Your task to perform on an android device: Open eBay Image 0: 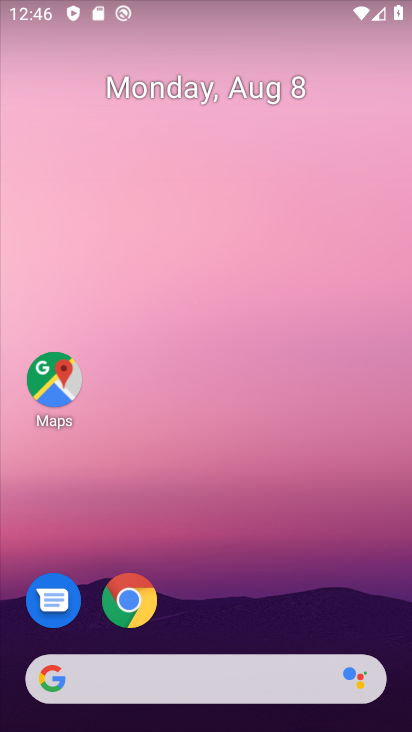
Step 0: press home button
Your task to perform on an android device: Open eBay Image 1: 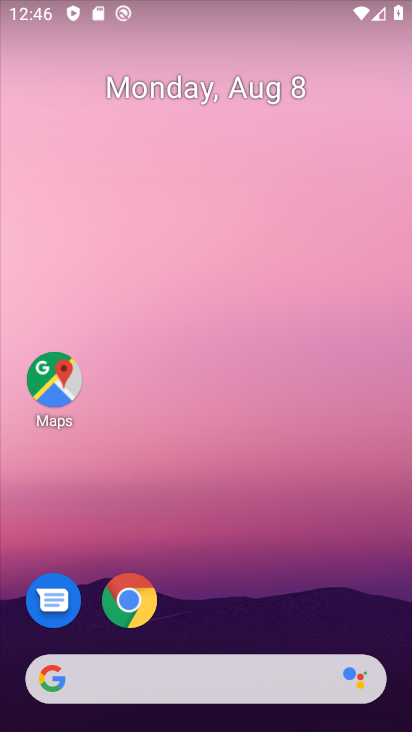
Step 1: drag from (112, 198) to (272, 169)
Your task to perform on an android device: Open eBay Image 2: 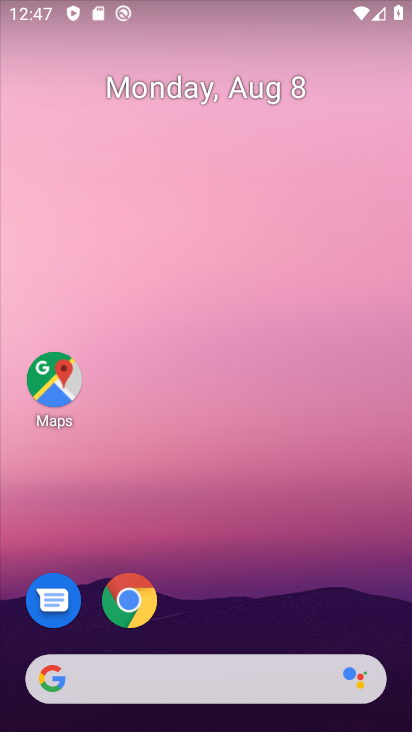
Step 2: click (135, 599)
Your task to perform on an android device: Open eBay Image 3: 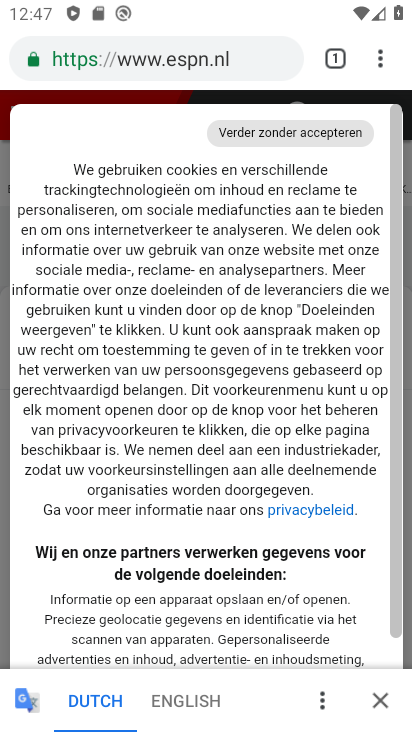
Step 3: click (182, 68)
Your task to perform on an android device: Open eBay Image 4: 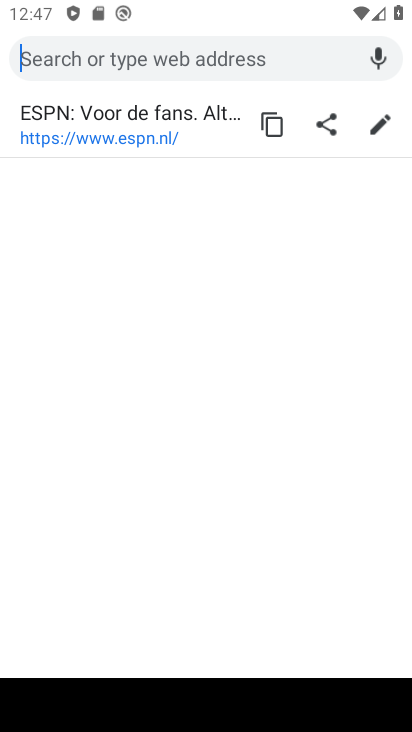
Step 4: type "eBay"
Your task to perform on an android device: Open eBay Image 5: 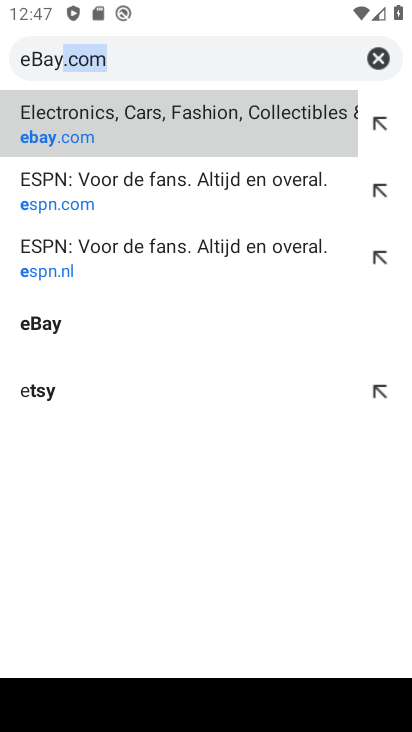
Step 5: type ""
Your task to perform on an android device: Open eBay Image 6: 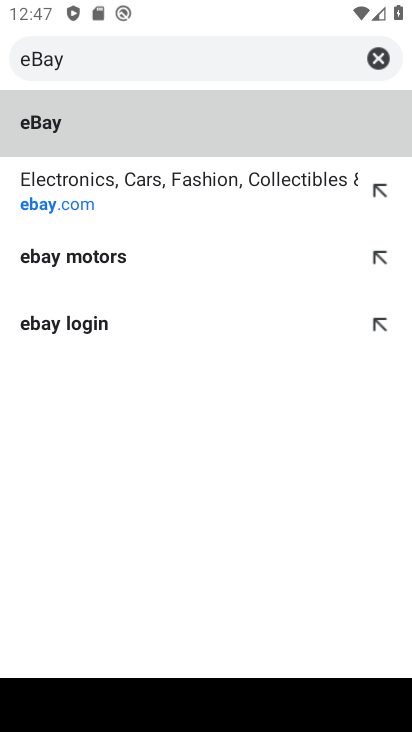
Step 6: click (267, 182)
Your task to perform on an android device: Open eBay Image 7: 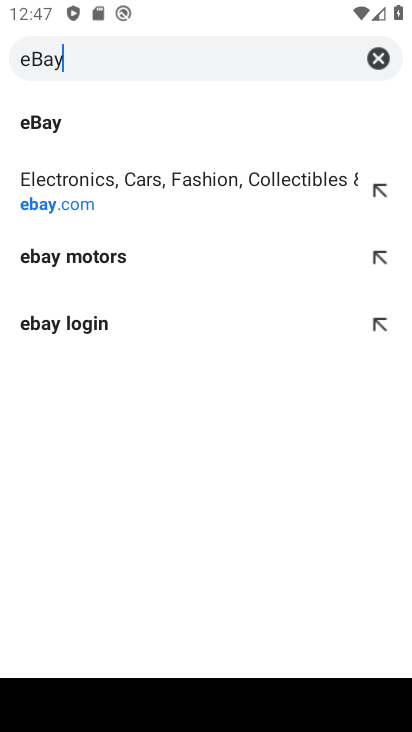
Step 7: click (112, 207)
Your task to perform on an android device: Open eBay Image 8: 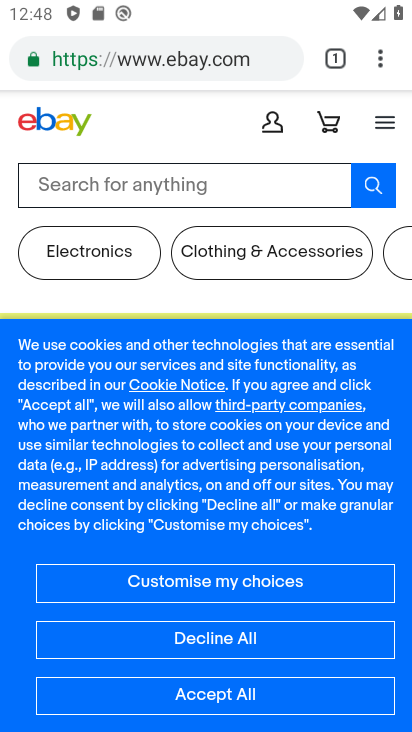
Step 8: task complete